Your task to perform on an android device: change keyboard looks Image 0: 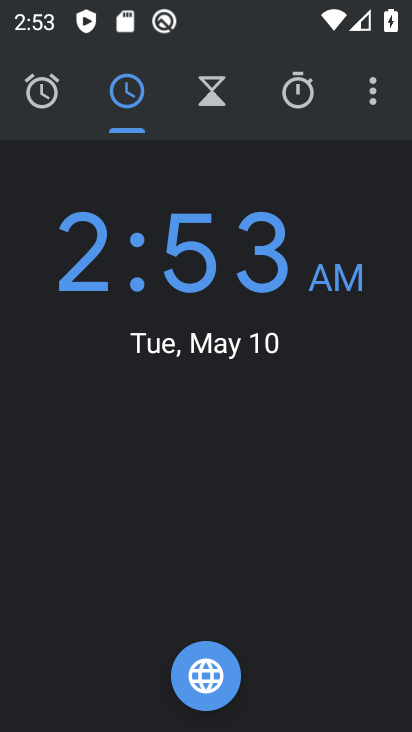
Step 0: press home button
Your task to perform on an android device: change keyboard looks Image 1: 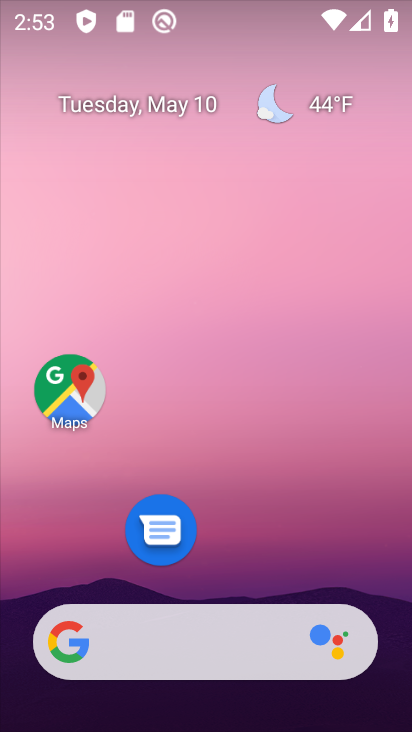
Step 1: drag from (238, 555) to (226, 82)
Your task to perform on an android device: change keyboard looks Image 2: 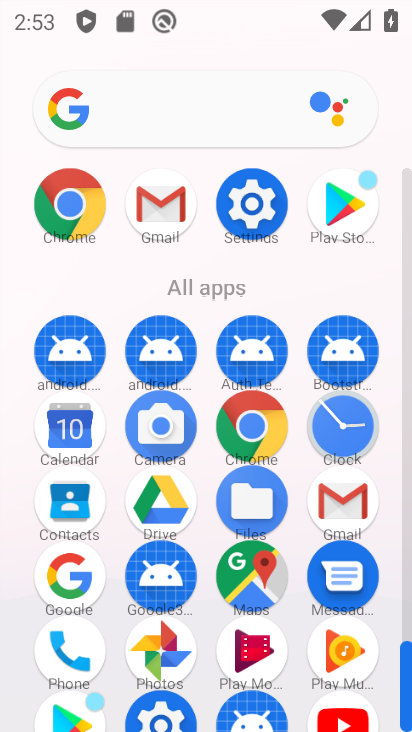
Step 2: click (249, 199)
Your task to perform on an android device: change keyboard looks Image 3: 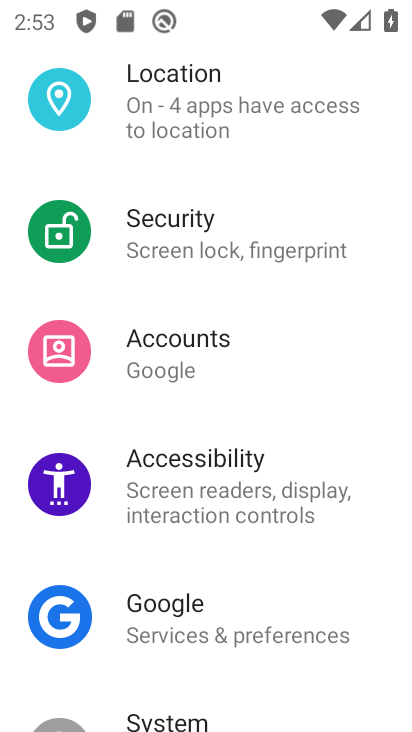
Step 3: drag from (262, 628) to (283, 280)
Your task to perform on an android device: change keyboard looks Image 4: 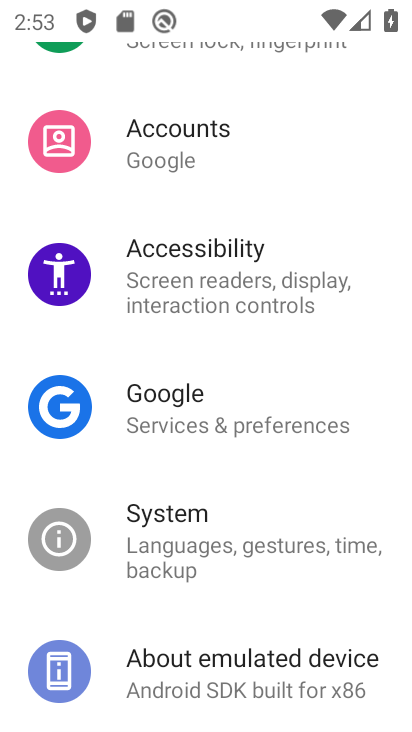
Step 4: click (209, 510)
Your task to perform on an android device: change keyboard looks Image 5: 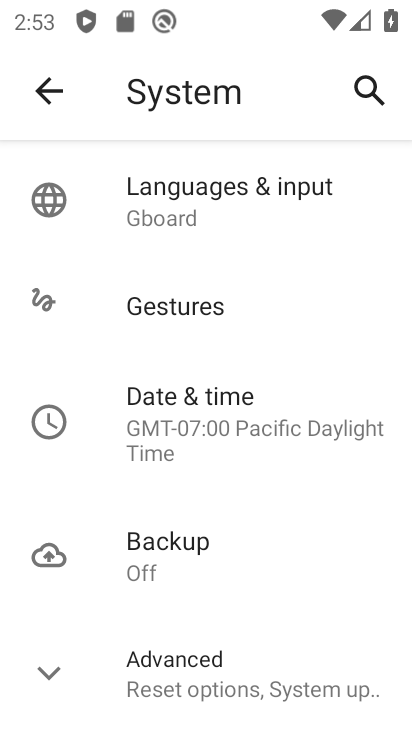
Step 5: drag from (252, 610) to (261, 311)
Your task to perform on an android device: change keyboard looks Image 6: 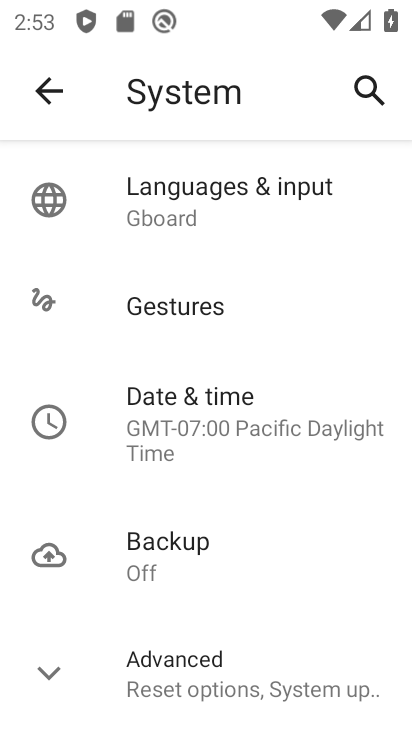
Step 6: click (194, 197)
Your task to perform on an android device: change keyboard looks Image 7: 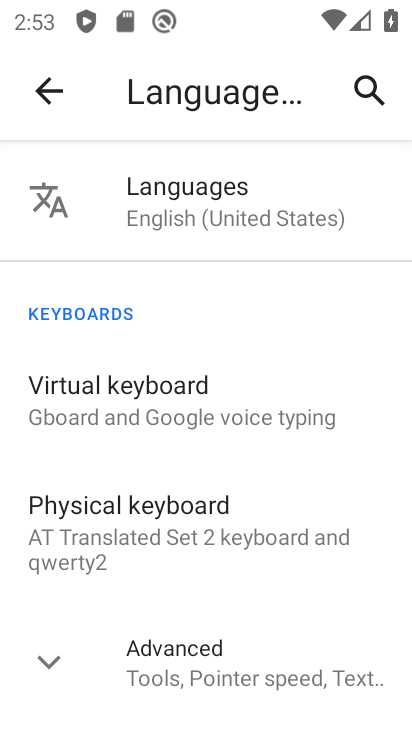
Step 7: click (170, 401)
Your task to perform on an android device: change keyboard looks Image 8: 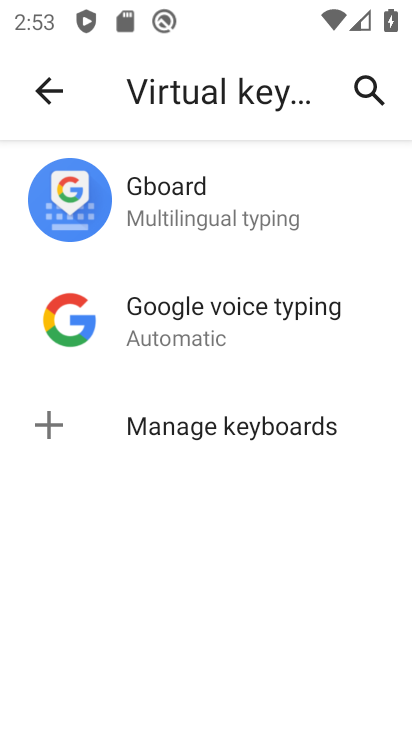
Step 8: click (170, 205)
Your task to perform on an android device: change keyboard looks Image 9: 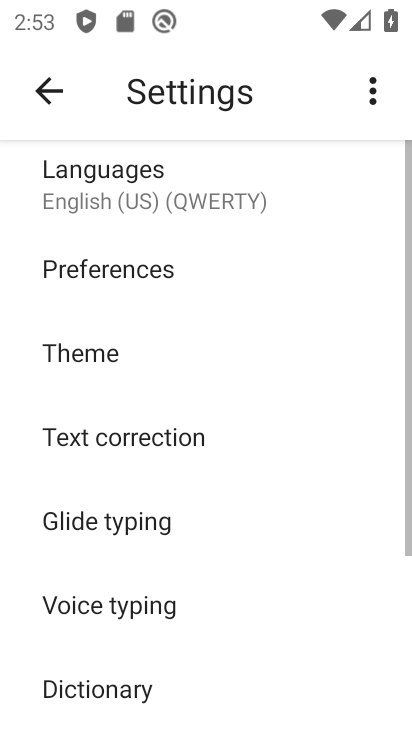
Step 9: drag from (112, 379) to (163, 359)
Your task to perform on an android device: change keyboard looks Image 10: 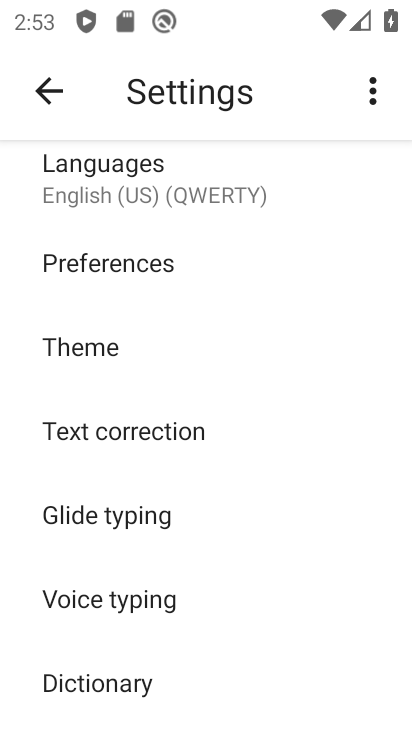
Step 10: click (106, 341)
Your task to perform on an android device: change keyboard looks Image 11: 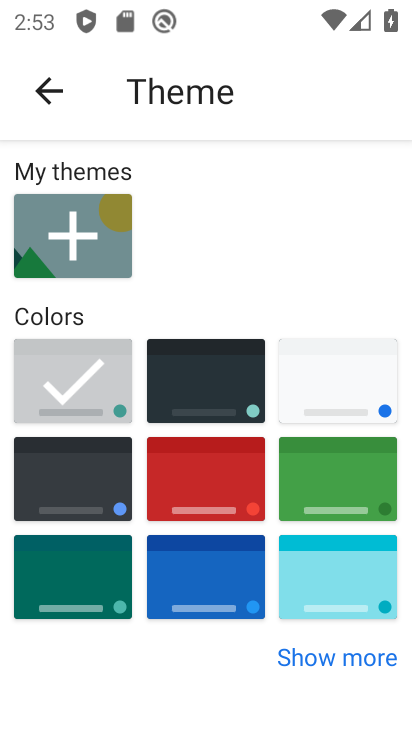
Step 11: click (218, 379)
Your task to perform on an android device: change keyboard looks Image 12: 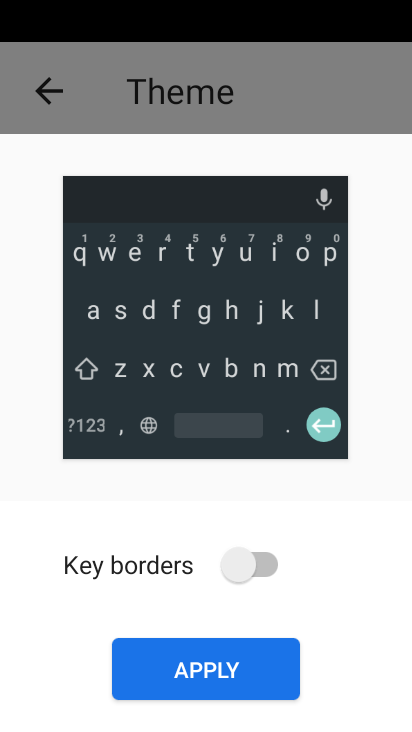
Step 12: click (212, 650)
Your task to perform on an android device: change keyboard looks Image 13: 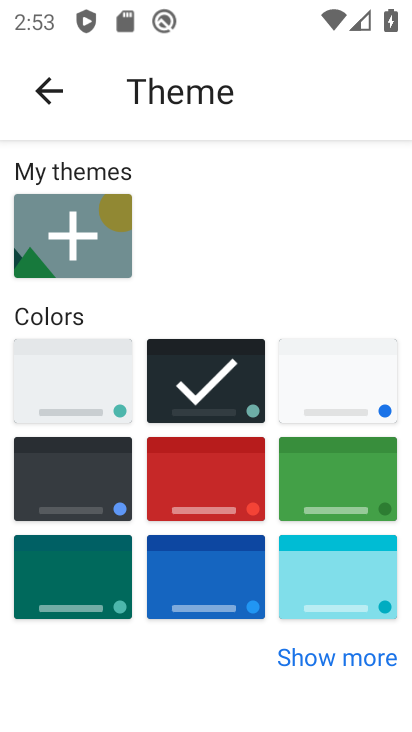
Step 13: task complete